Your task to perform on an android device: turn on notifications settings in the gmail app Image 0: 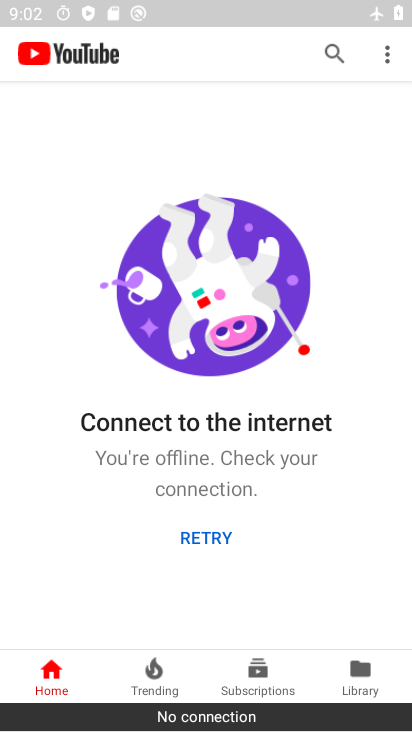
Step 0: press home button
Your task to perform on an android device: turn on notifications settings in the gmail app Image 1: 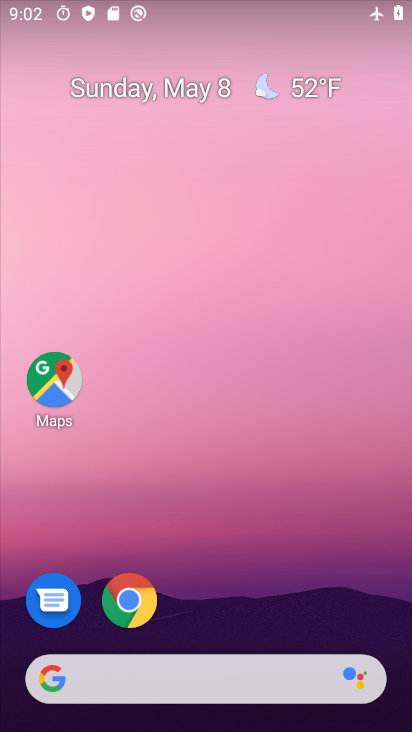
Step 1: drag from (326, 613) to (285, 284)
Your task to perform on an android device: turn on notifications settings in the gmail app Image 2: 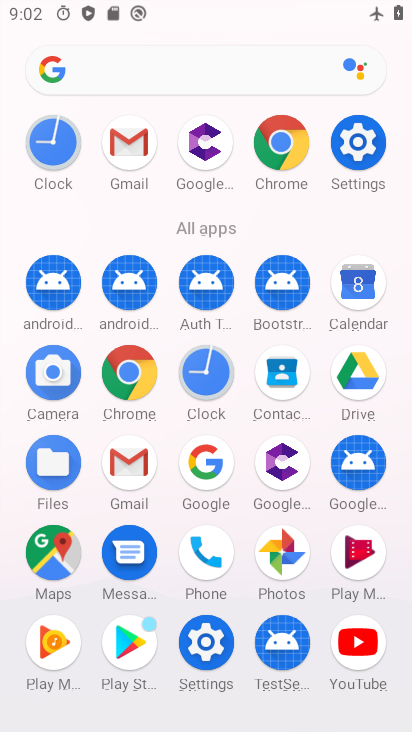
Step 2: click (127, 151)
Your task to perform on an android device: turn on notifications settings in the gmail app Image 3: 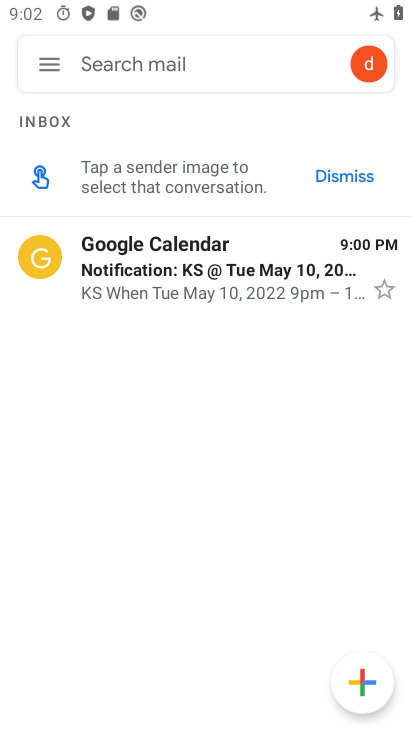
Step 3: click (51, 64)
Your task to perform on an android device: turn on notifications settings in the gmail app Image 4: 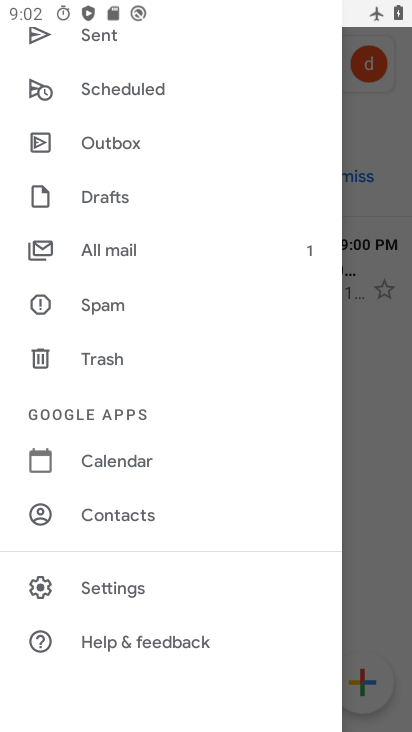
Step 4: click (125, 592)
Your task to perform on an android device: turn on notifications settings in the gmail app Image 5: 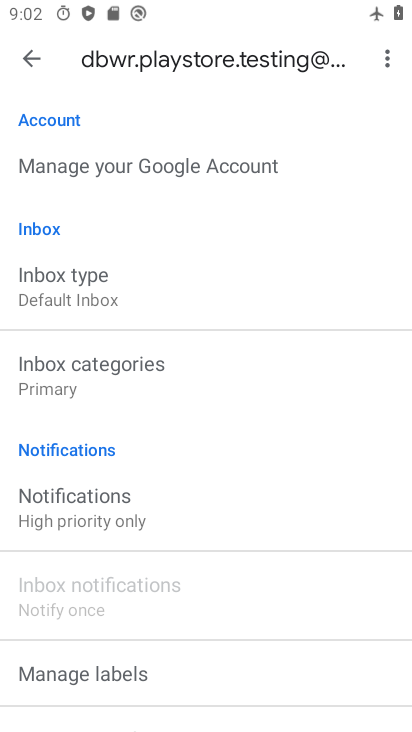
Step 5: click (108, 494)
Your task to perform on an android device: turn on notifications settings in the gmail app Image 6: 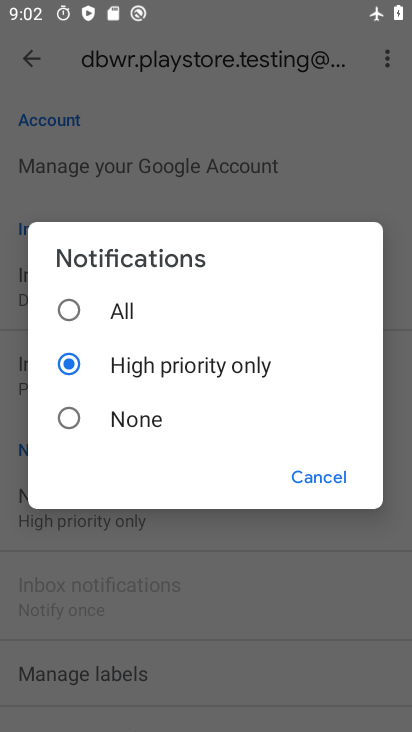
Step 6: task complete